Your task to perform on an android device: turn on the 24-hour format for clock Image 0: 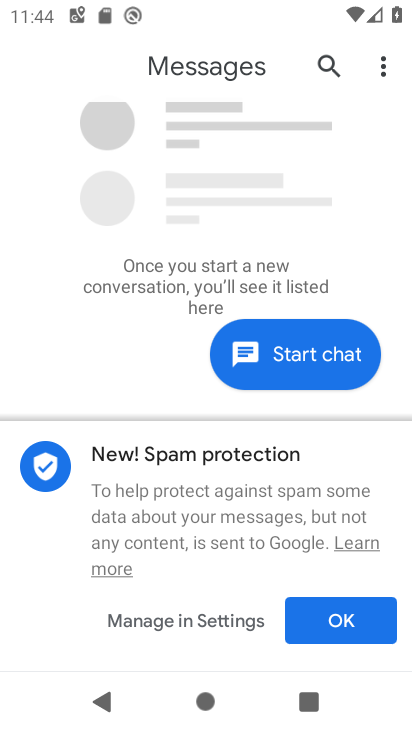
Step 0: press home button
Your task to perform on an android device: turn on the 24-hour format for clock Image 1: 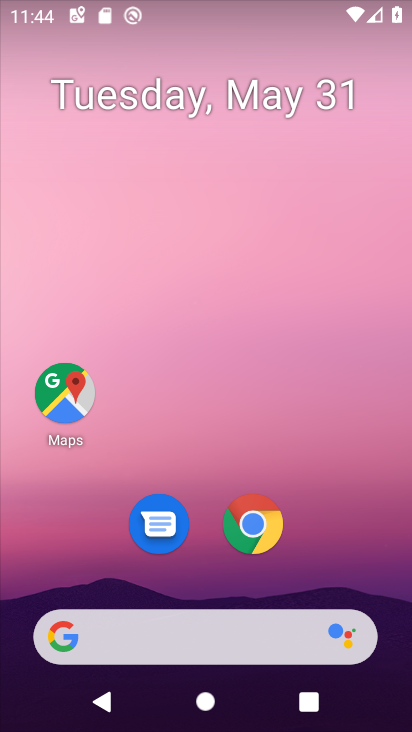
Step 1: drag from (307, 558) to (312, 41)
Your task to perform on an android device: turn on the 24-hour format for clock Image 2: 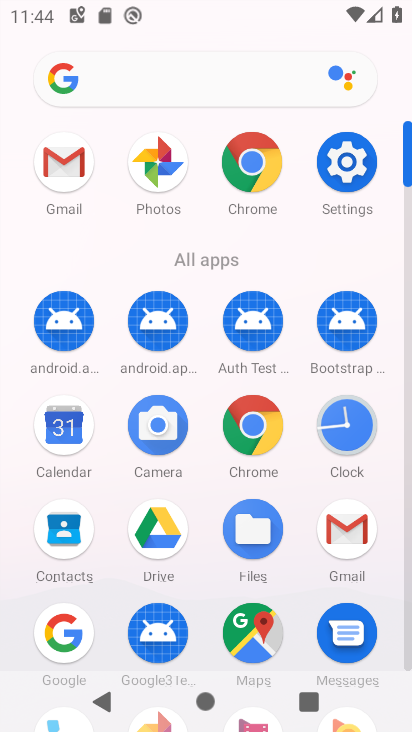
Step 2: click (340, 426)
Your task to perform on an android device: turn on the 24-hour format for clock Image 3: 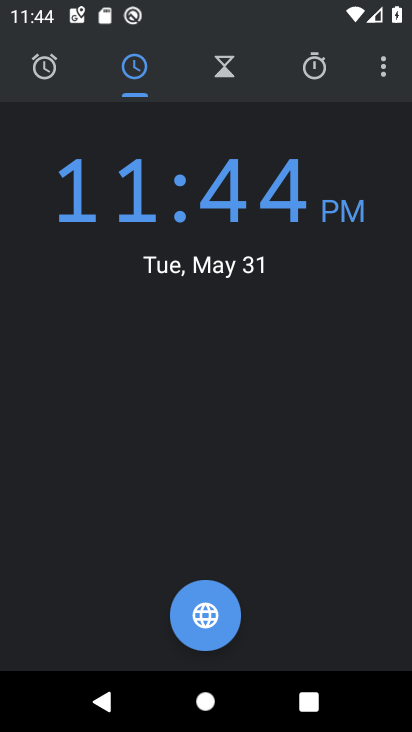
Step 3: click (380, 69)
Your task to perform on an android device: turn on the 24-hour format for clock Image 4: 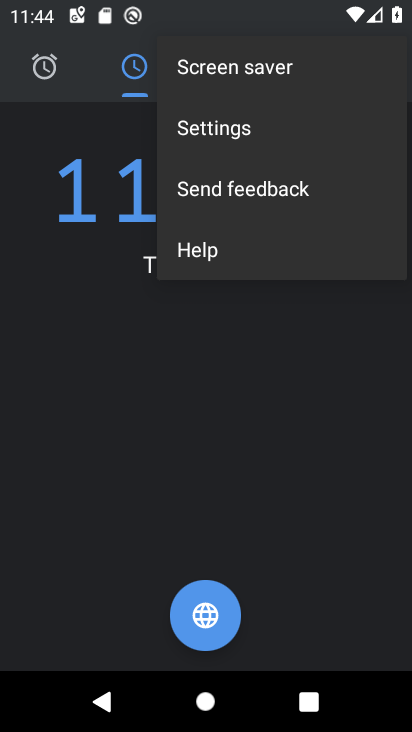
Step 4: click (295, 125)
Your task to perform on an android device: turn on the 24-hour format for clock Image 5: 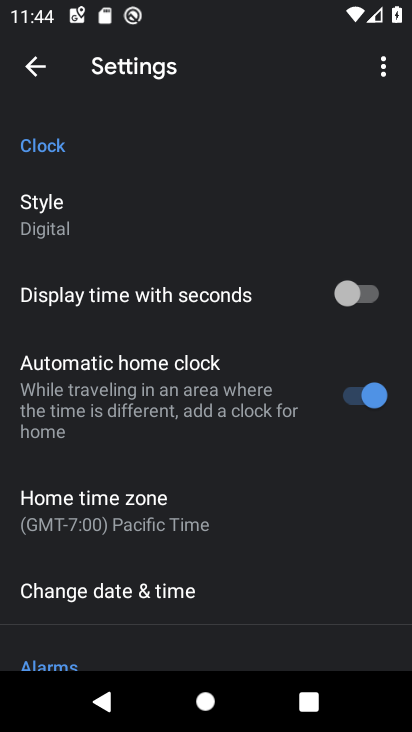
Step 5: click (283, 593)
Your task to perform on an android device: turn on the 24-hour format for clock Image 6: 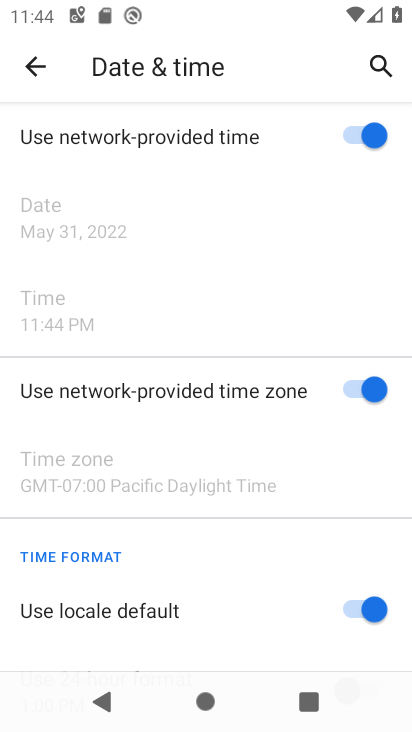
Step 6: drag from (330, 573) to (350, 433)
Your task to perform on an android device: turn on the 24-hour format for clock Image 7: 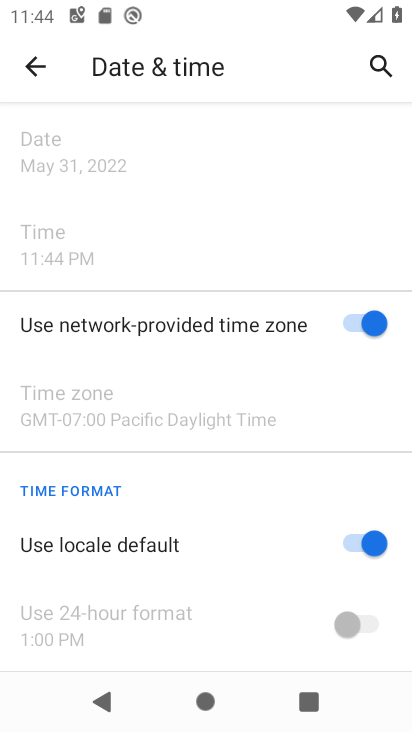
Step 7: click (349, 539)
Your task to perform on an android device: turn on the 24-hour format for clock Image 8: 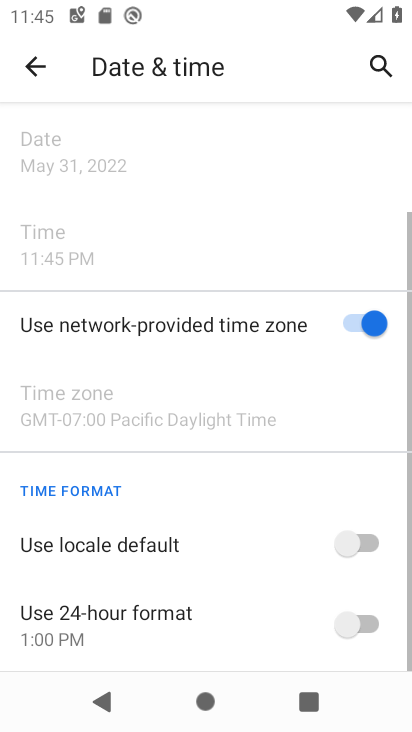
Step 8: click (358, 617)
Your task to perform on an android device: turn on the 24-hour format for clock Image 9: 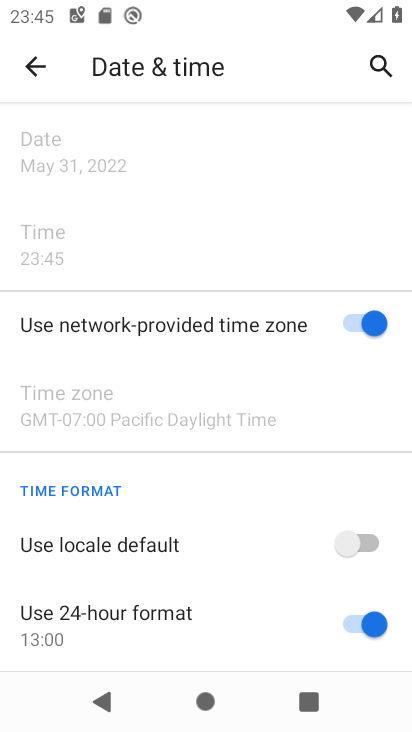
Step 9: task complete